Your task to perform on an android device: open device folders in google photos Image 0: 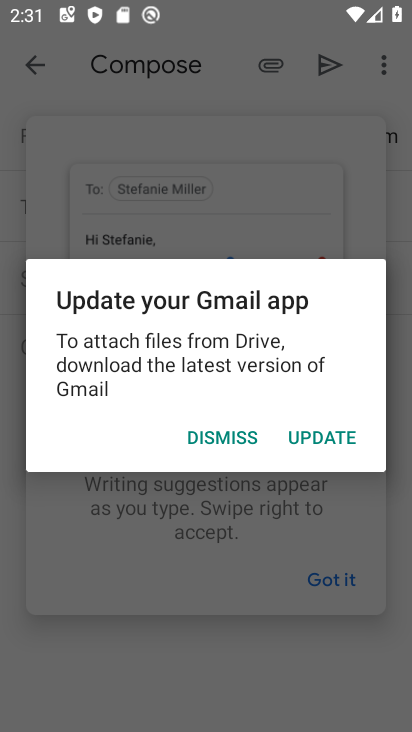
Step 0: press home button
Your task to perform on an android device: open device folders in google photos Image 1: 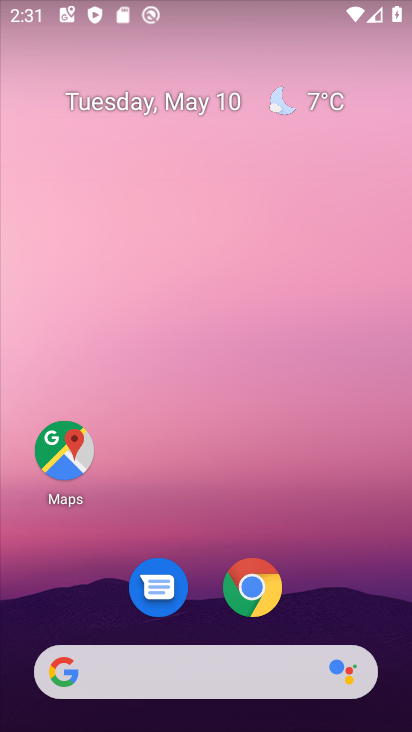
Step 1: drag from (356, 552) to (278, 60)
Your task to perform on an android device: open device folders in google photos Image 2: 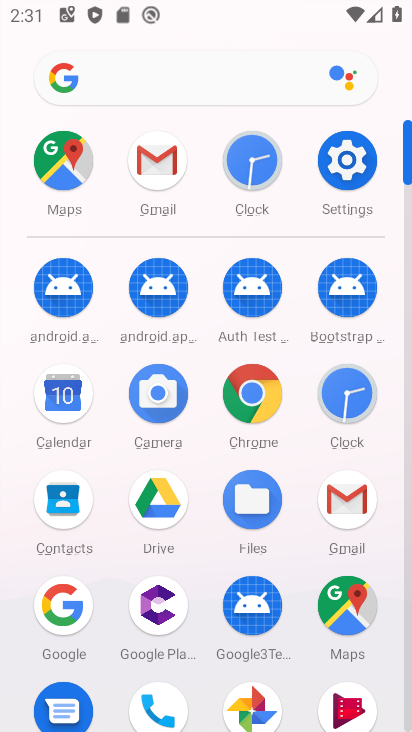
Step 2: click (245, 698)
Your task to perform on an android device: open device folders in google photos Image 3: 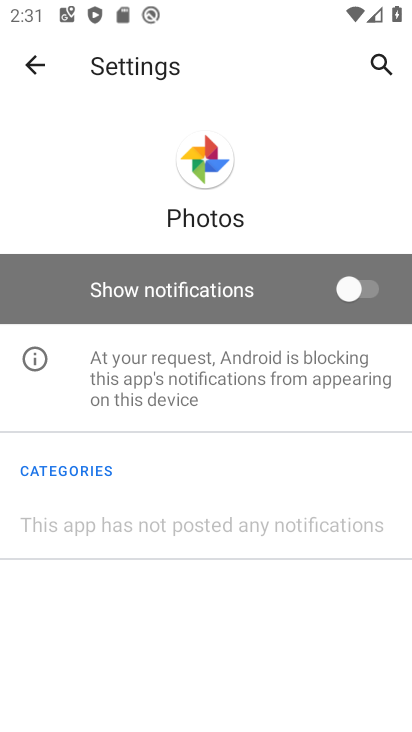
Step 3: click (39, 55)
Your task to perform on an android device: open device folders in google photos Image 4: 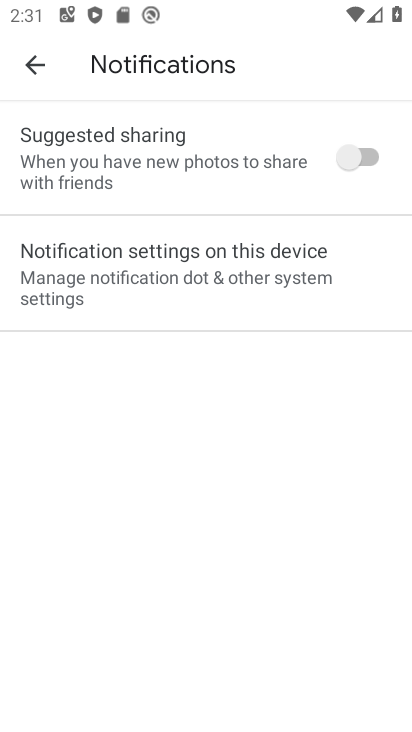
Step 4: click (44, 69)
Your task to perform on an android device: open device folders in google photos Image 5: 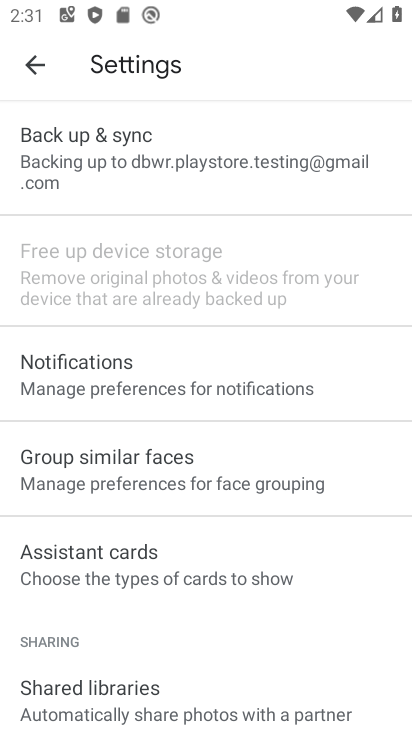
Step 5: click (43, 69)
Your task to perform on an android device: open device folders in google photos Image 6: 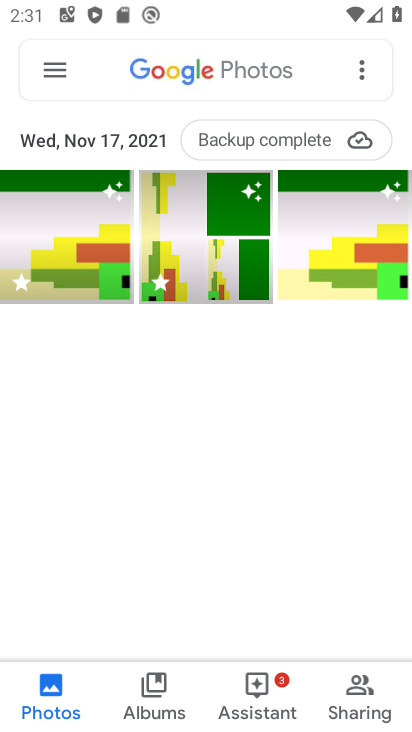
Step 6: click (43, 69)
Your task to perform on an android device: open device folders in google photos Image 7: 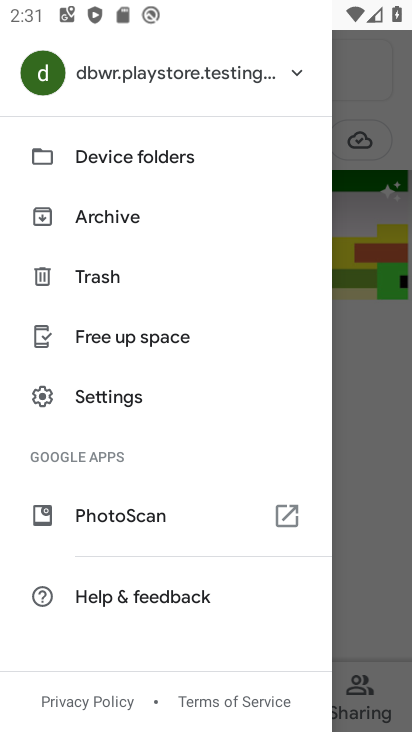
Step 7: click (135, 157)
Your task to perform on an android device: open device folders in google photos Image 8: 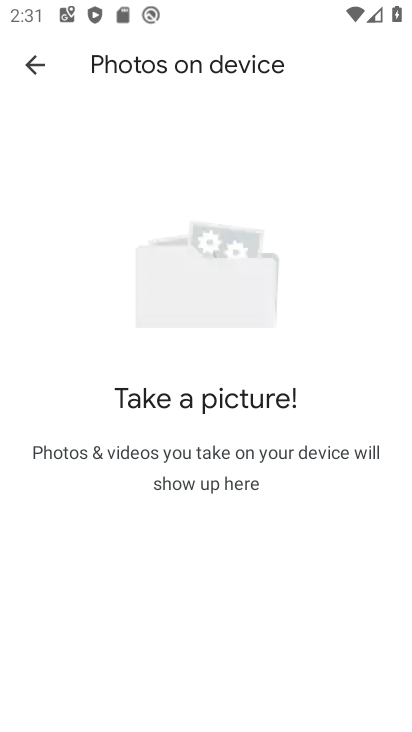
Step 8: task complete